Your task to perform on an android device: Add "logitech g502" to the cart on ebay.com Image 0: 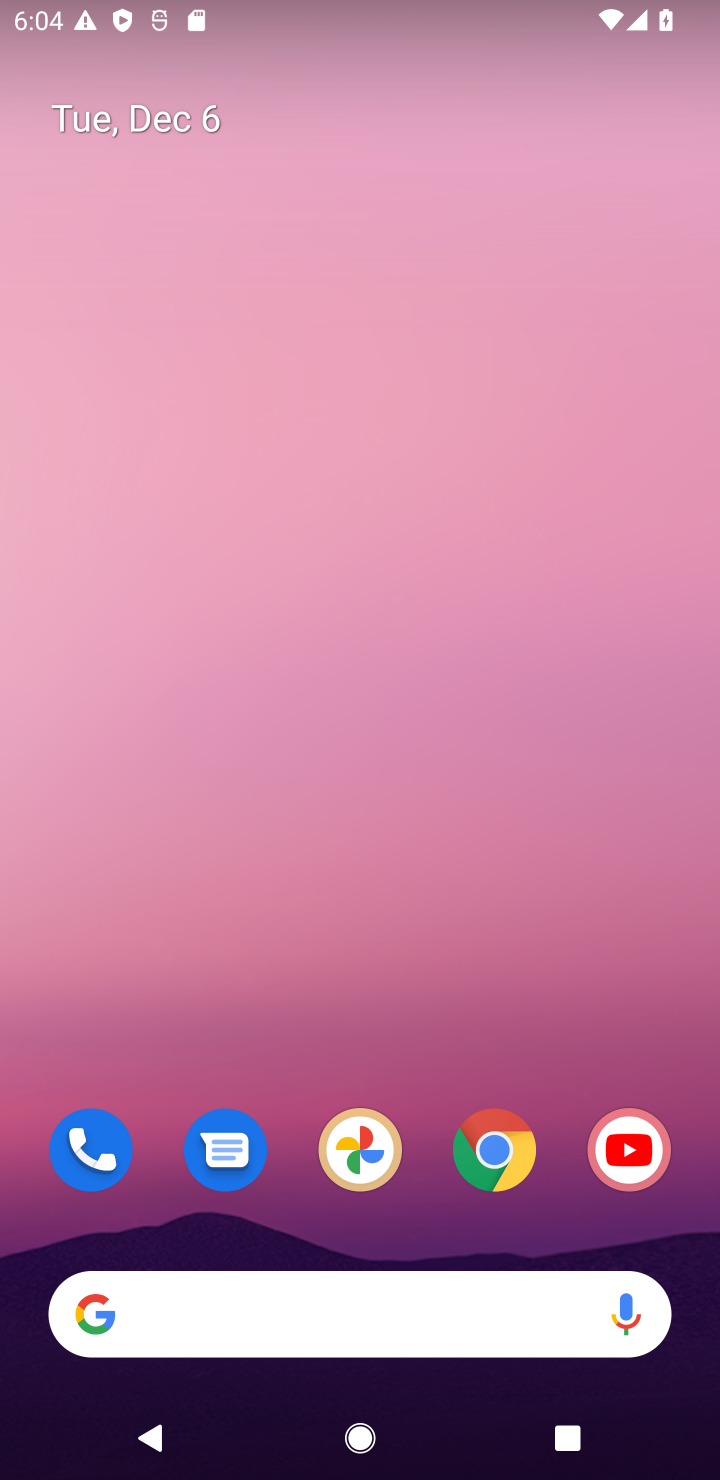
Step 0: click (509, 1154)
Your task to perform on an android device: Add "logitech g502" to the cart on ebay.com Image 1: 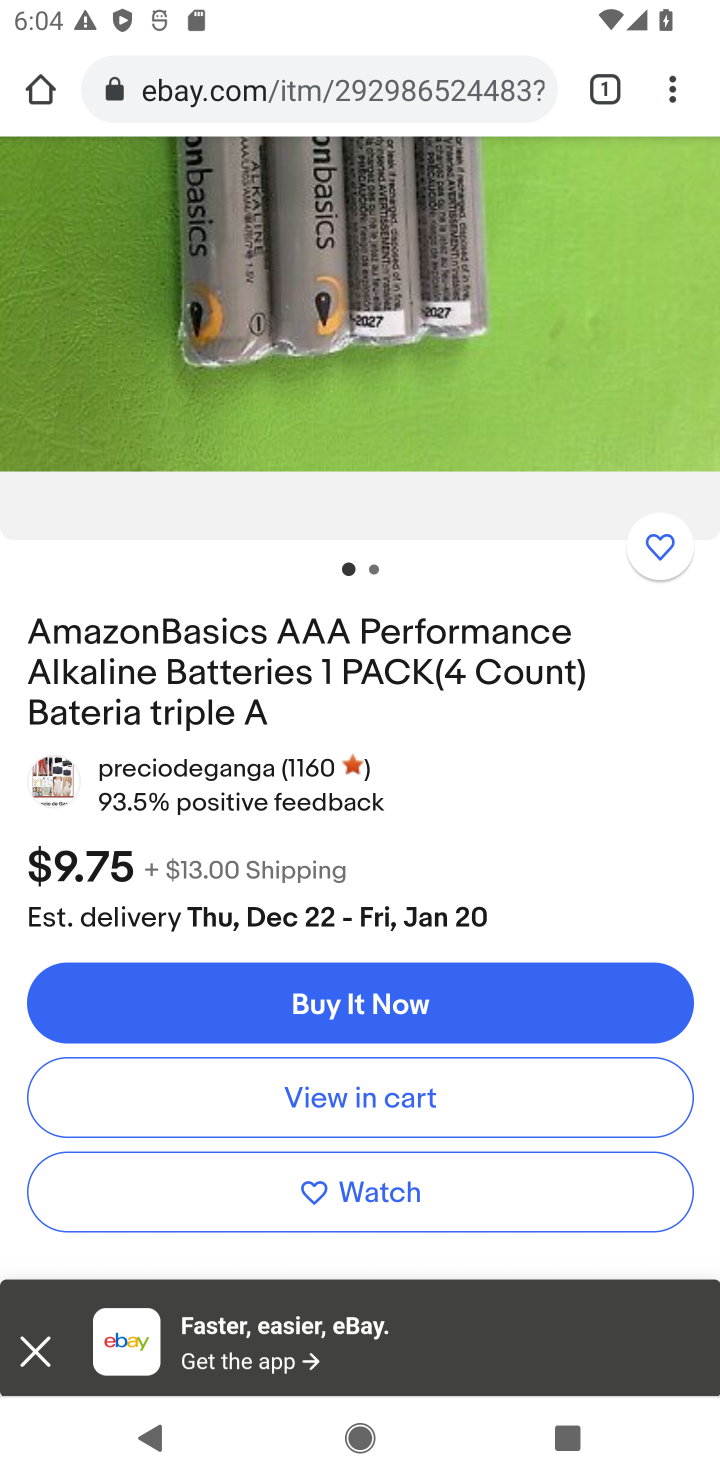
Step 1: drag from (279, 335) to (242, 981)
Your task to perform on an android device: Add "logitech g502" to the cart on ebay.com Image 2: 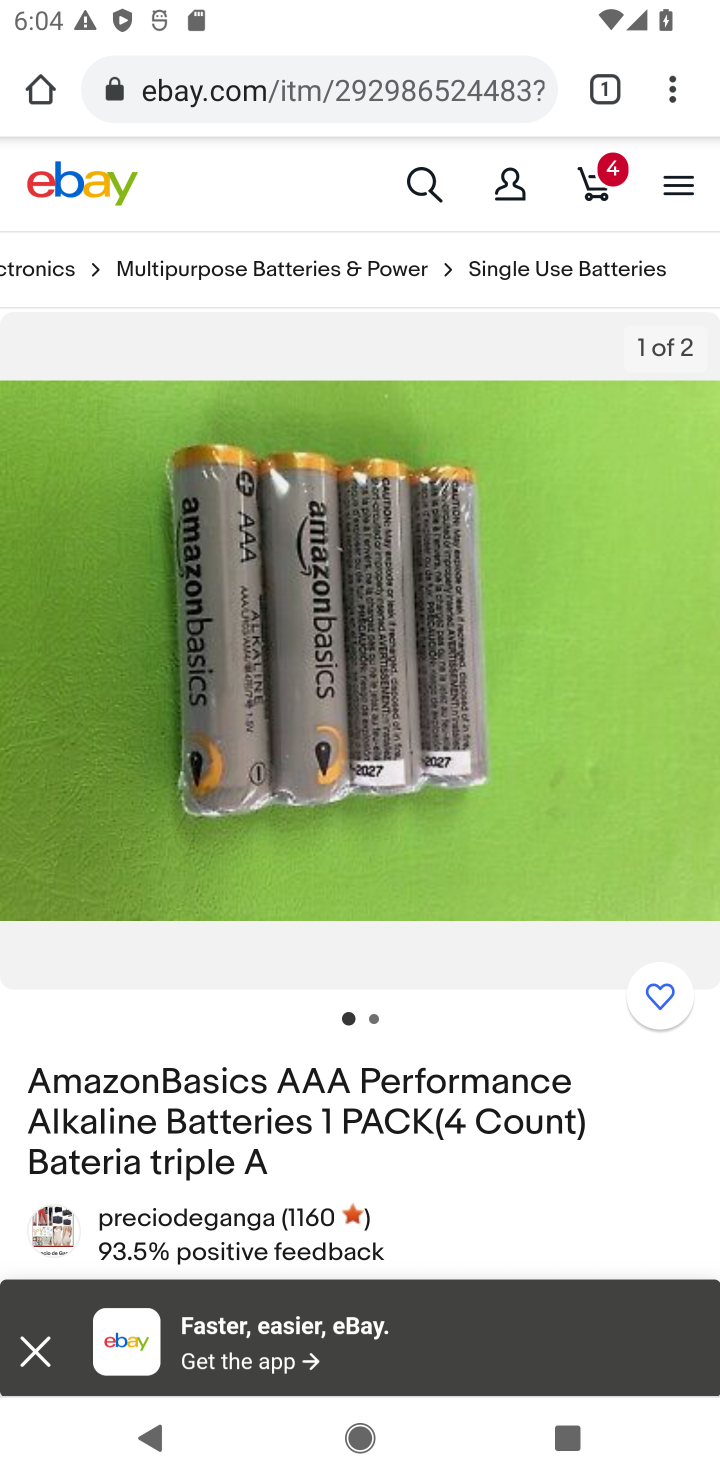
Step 2: click (406, 191)
Your task to perform on an android device: Add "logitech g502" to the cart on ebay.com Image 3: 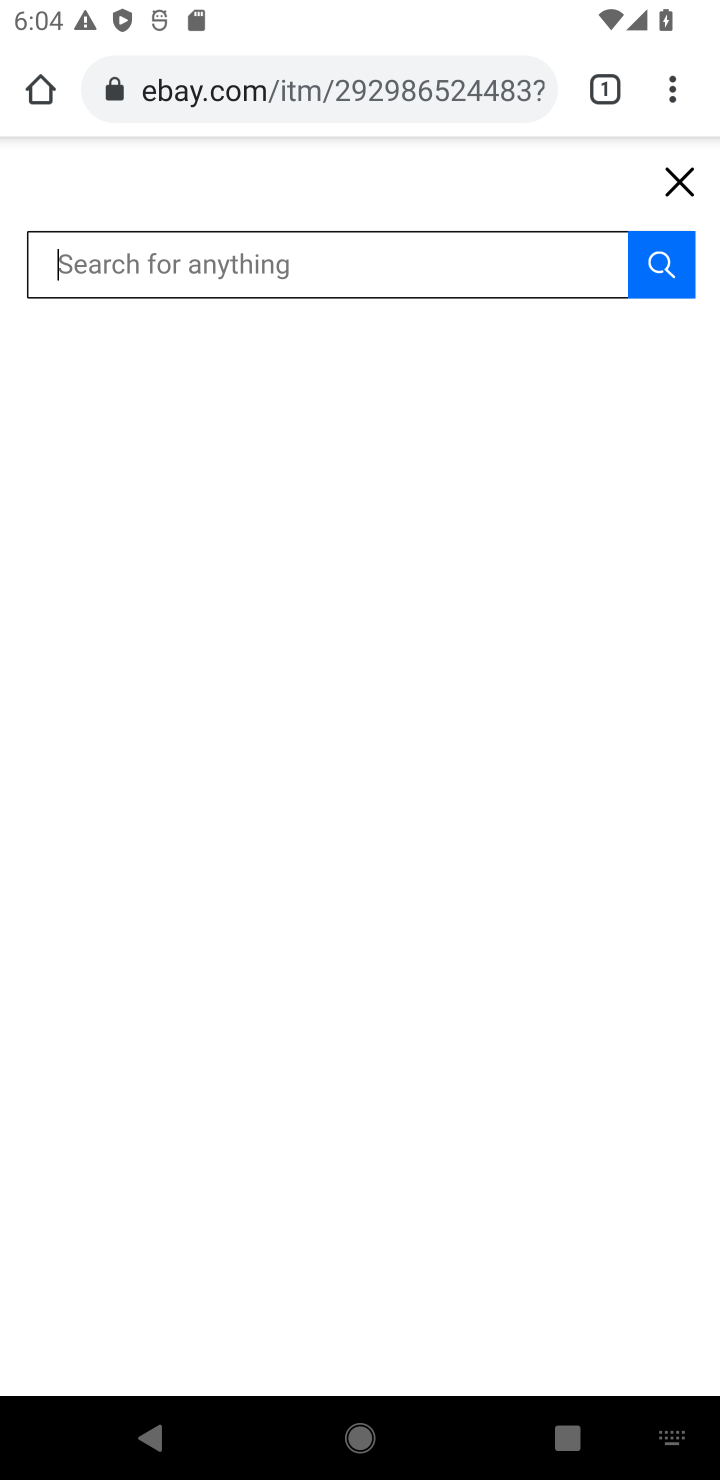
Step 3: type "logitech g502"
Your task to perform on an android device: Add "logitech g502" to the cart on ebay.com Image 4: 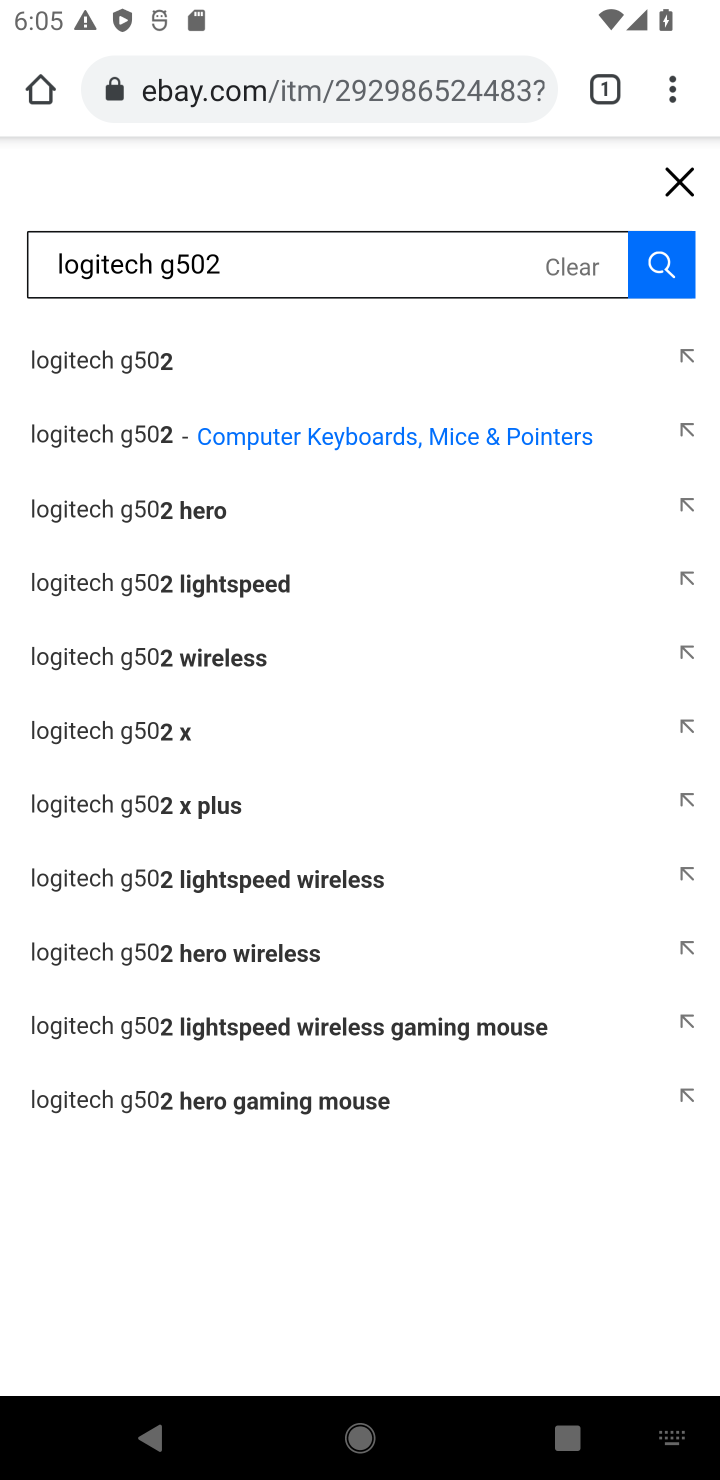
Step 4: click (92, 358)
Your task to perform on an android device: Add "logitech g502" to the cart on ebay.com Image 5: 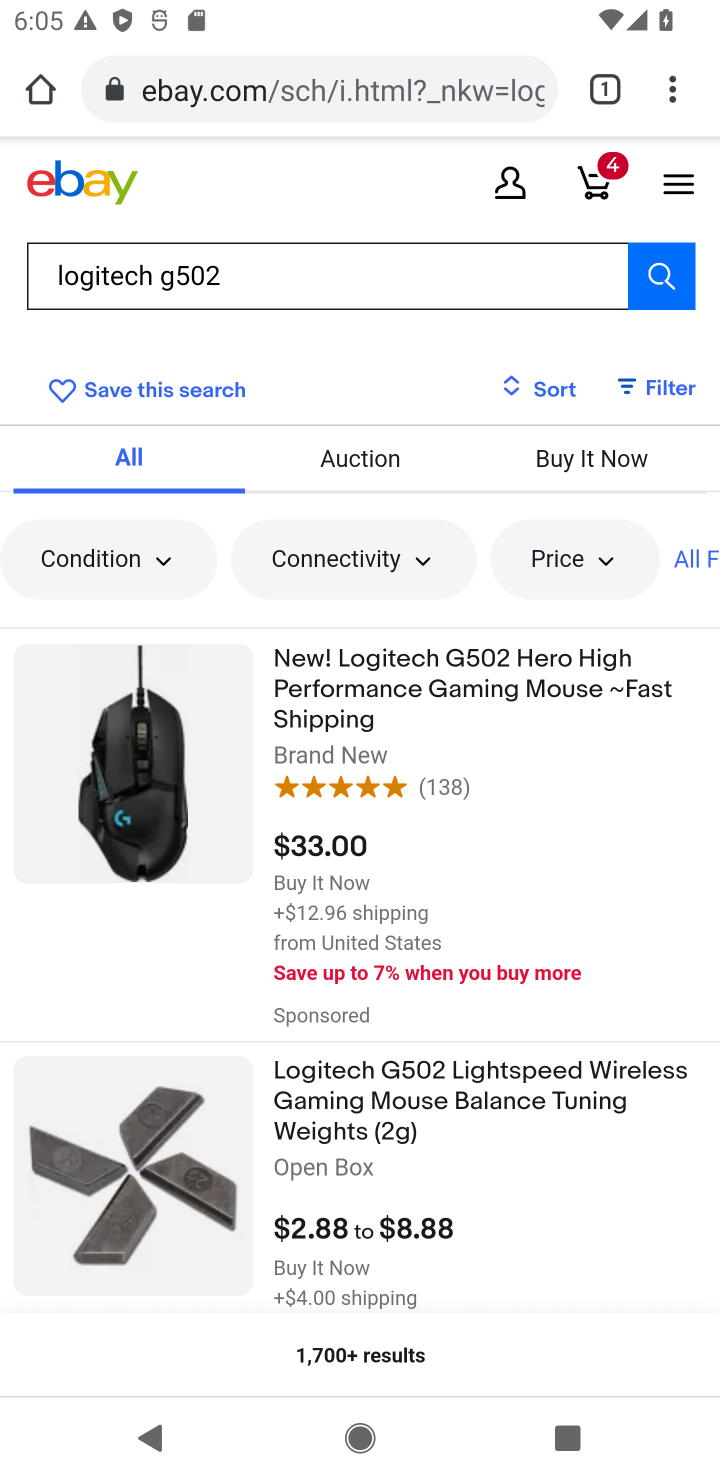
Step 5: click (351, 706)
Your task to perform on an android device: Add "logitech g502" to the cart on ebay.com Image 6: 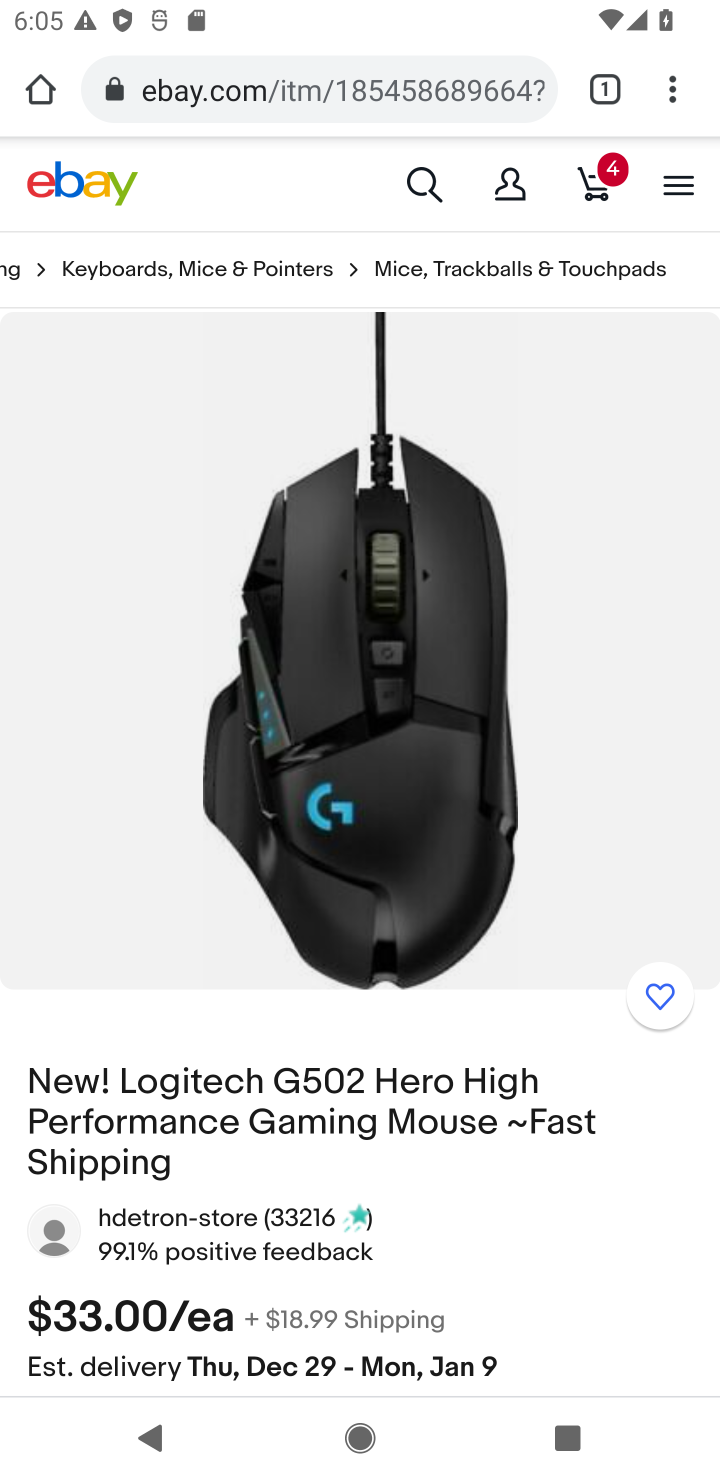
Step 6: drag from (369, 1091) to (316, 417)
Your task to perform on an android device: Add "logitech g502" to the cart on ebay.com Image 7: 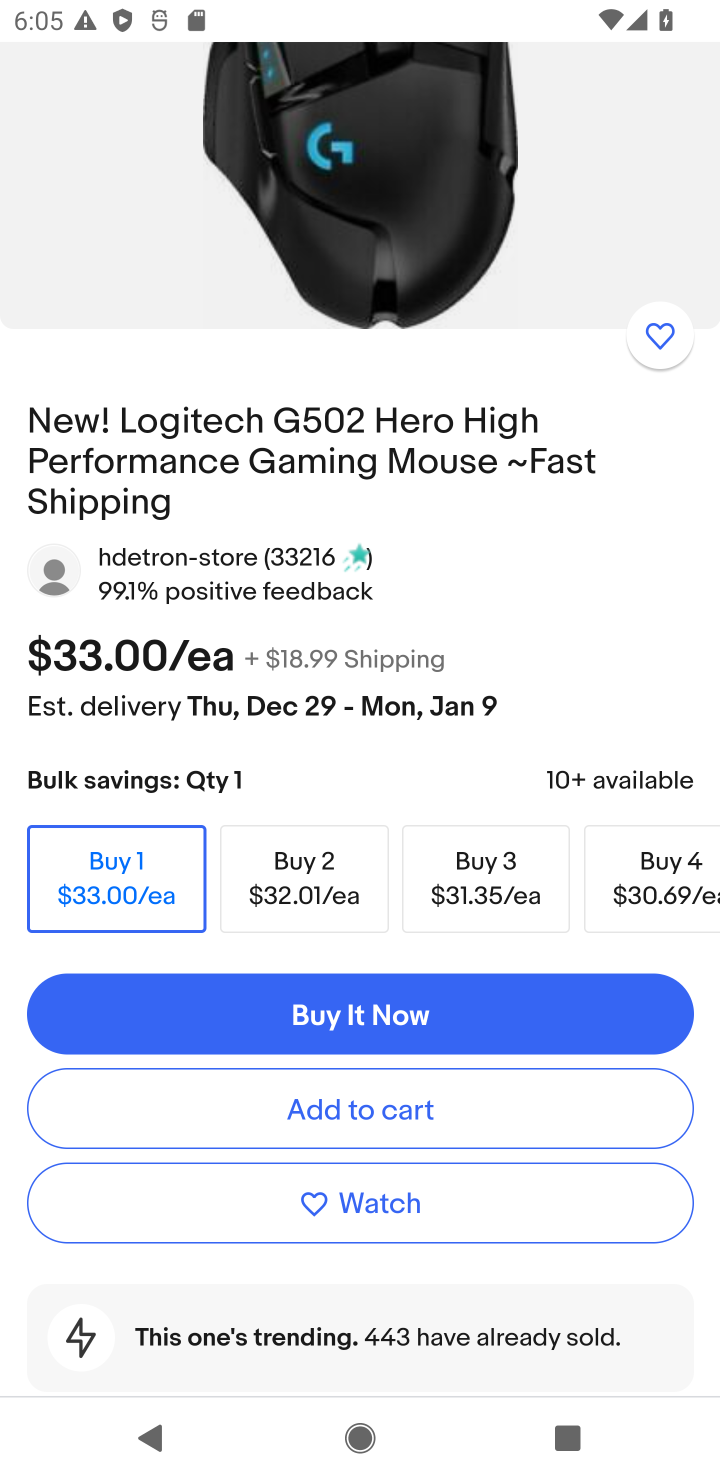
Step 7: click (284, 1113)
Your task to perform on an android device: Add "logitech g502" to the cart on ebay.com Image 8: 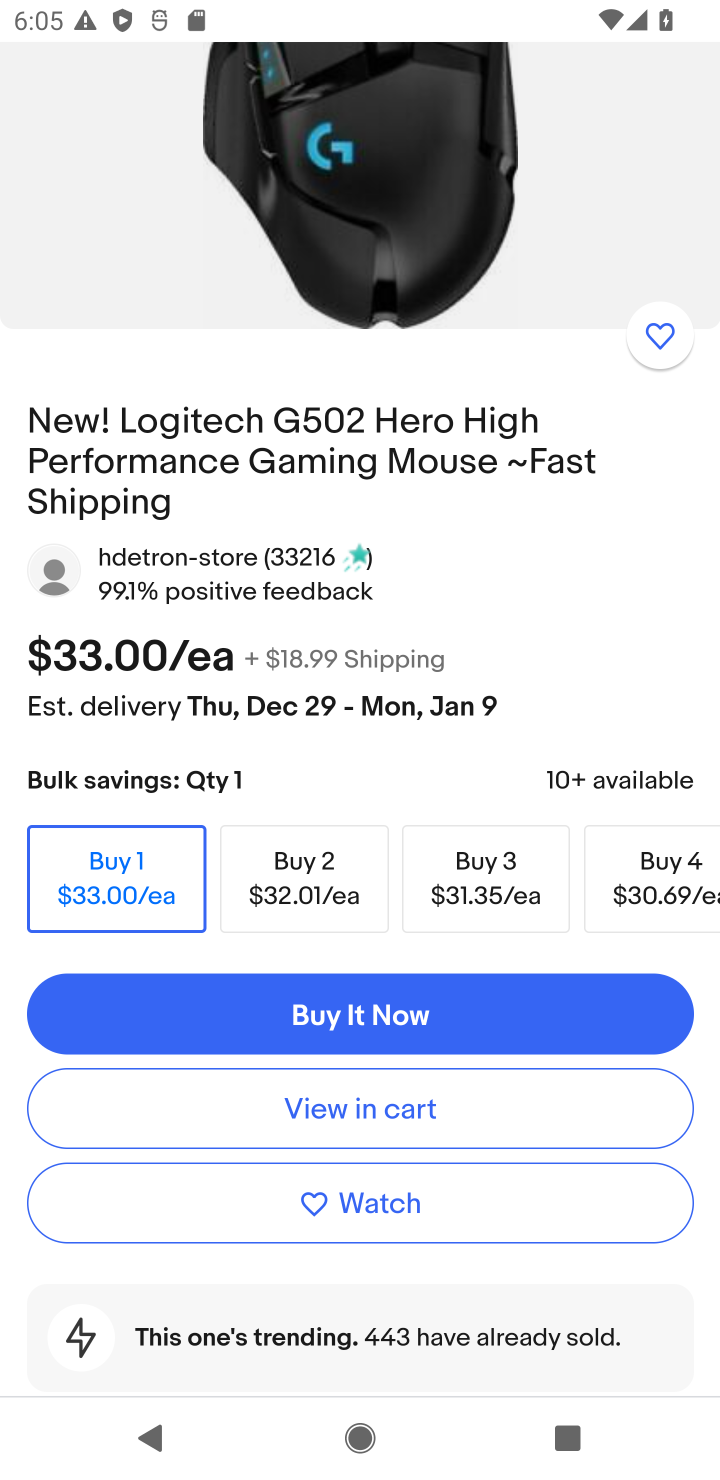
Step 8: task complete